Your task to perform on an android device: find photos in the google photos app Image 0: 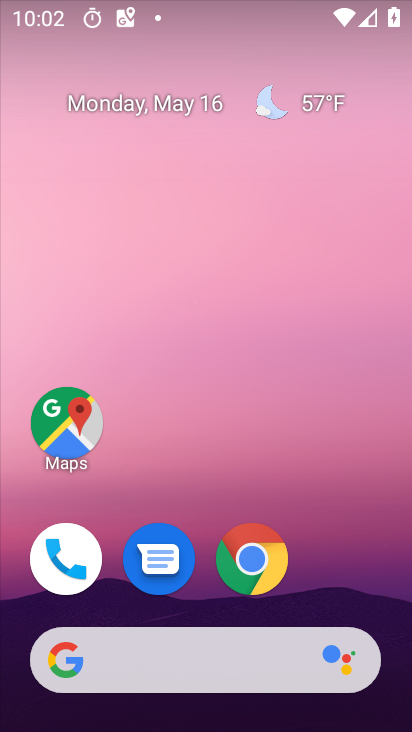
Step 0: drag from (351, 568) to (317, 159)
Your task to perform on an android device: find photos in the google photos app Image 1: 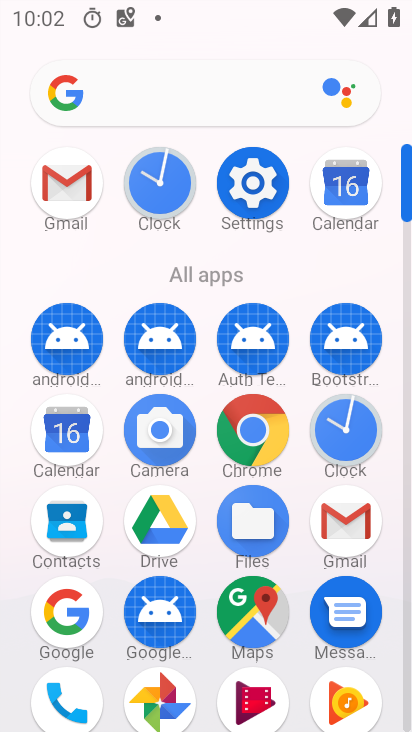
Step 1: click (169, 682)
Your task to perform on an android device: find photos in the google photos app Image 2: 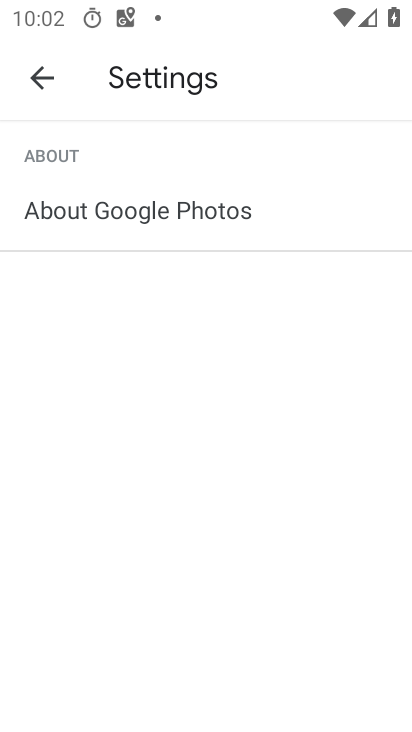
Step 2: click (44, 83)
Your task to perform on an android device: find photos in the google photos app Image 3: 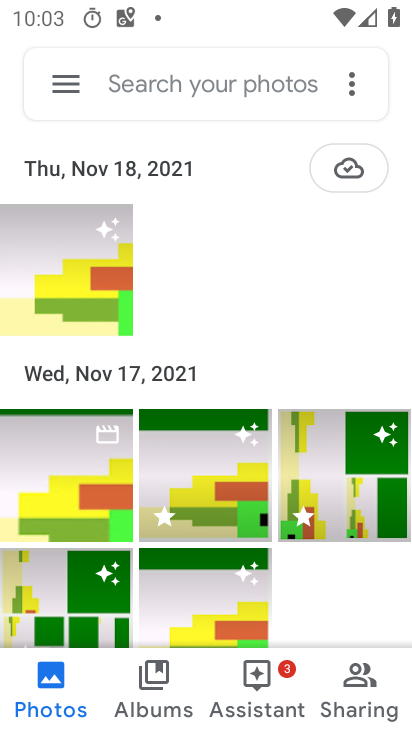
Step 3: task complete